Your task to perform on an android device: Open CNN.com Image 0: 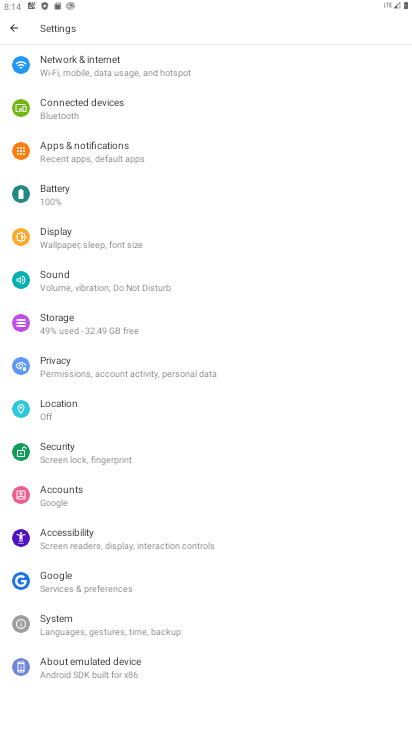
Step 0: press home button
Your task to perform on an android device: Open CNN.com Image 1: 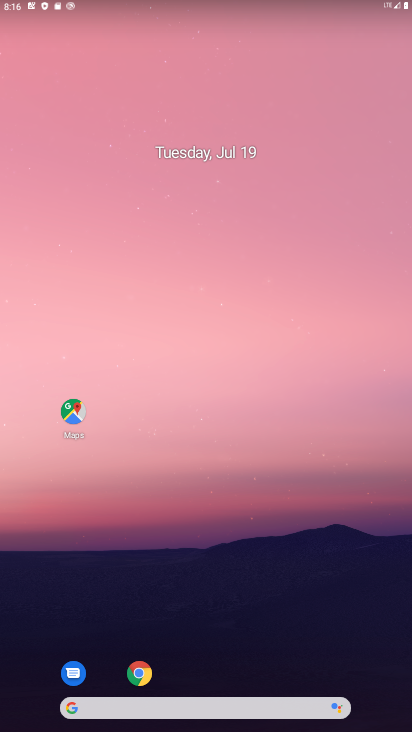
Step 1: drag from (364, 695) to (215, 1)
Your task to perform on an android device: Open CNN.com Image 2: 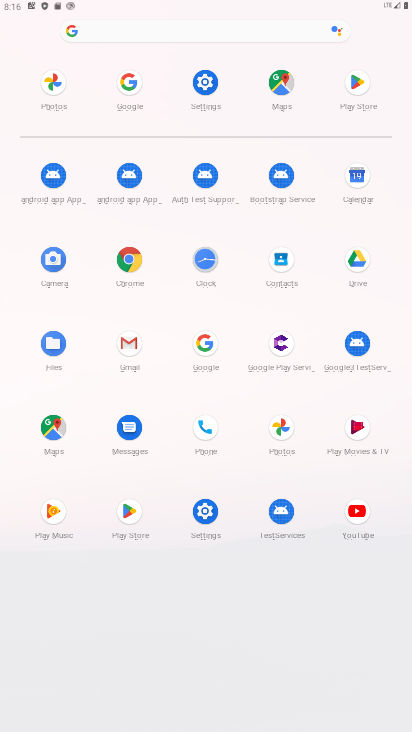
Step 2: click (199, 353)
Your task to perform on an android device: Open CNN.com Image 3: 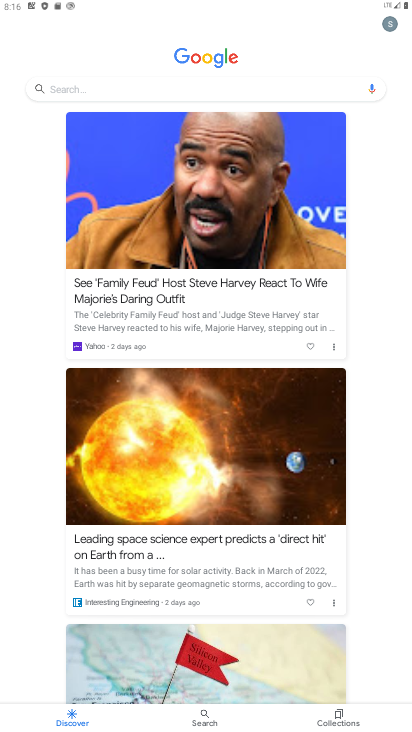
Step 3: click (104, 88)
Your task to perform on an android device: Open CNN.com Image 4: 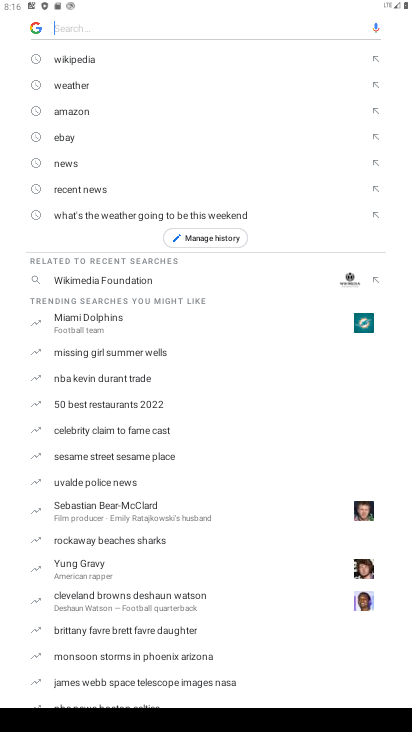
Step 4: type "CNN.com"
Your task to perform on an android device: Open CNN.com Image 5: 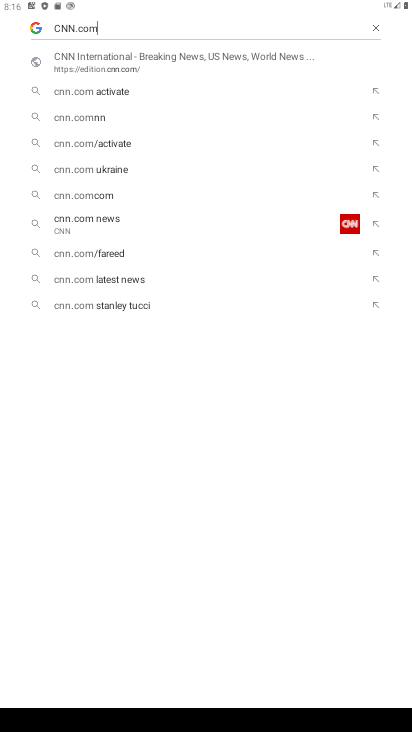
Step 5: click (116, 70)
Your task to perform on an android device: Open CNN.com Image 6: 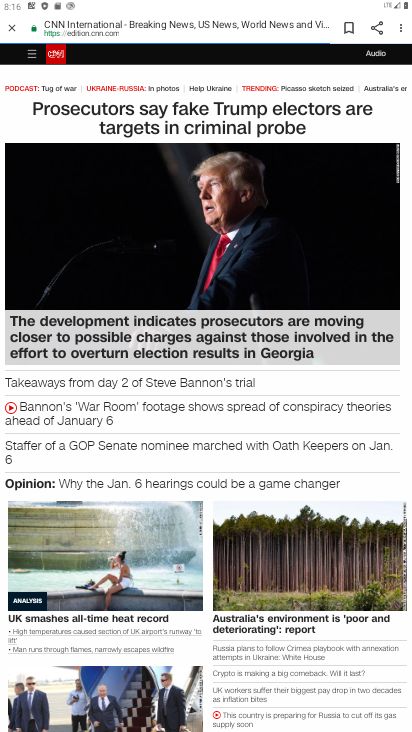
Step 6: task complete